Your task to perform on an android device: Search for vegetarian restaurants on Maps Image 0: 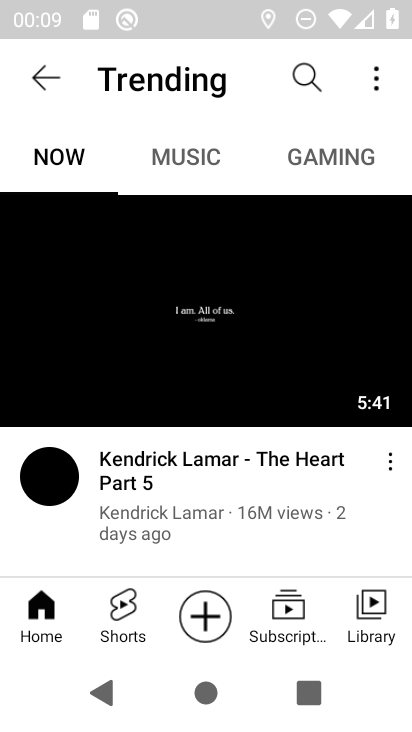
Step 0: press home button
Your task to perform on an android device: Search for vegetarian restaurants on Maps Image 1: 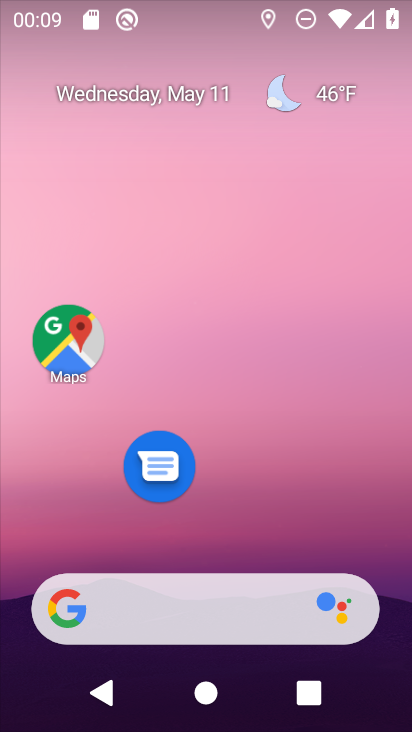
Step 1: drag from (279, 532) to (271, 6)
Your task to perform on an android device: Search for vegetarian restaurants on Maps Image 2: 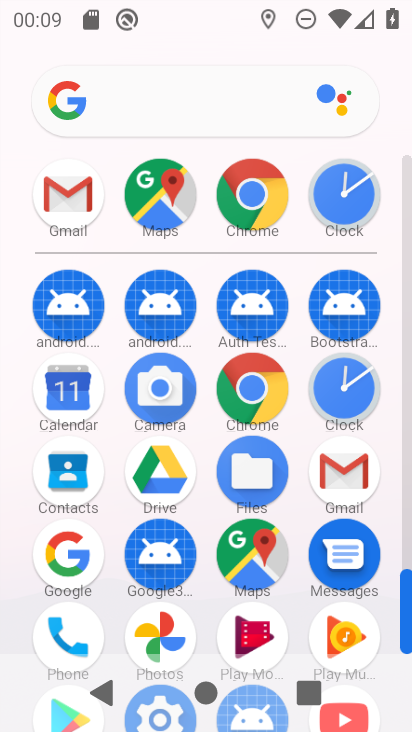
Step 2: click (172, 185)
Your task to perform on an android device: Search for vegetarian restaurants on Maps Image 3: 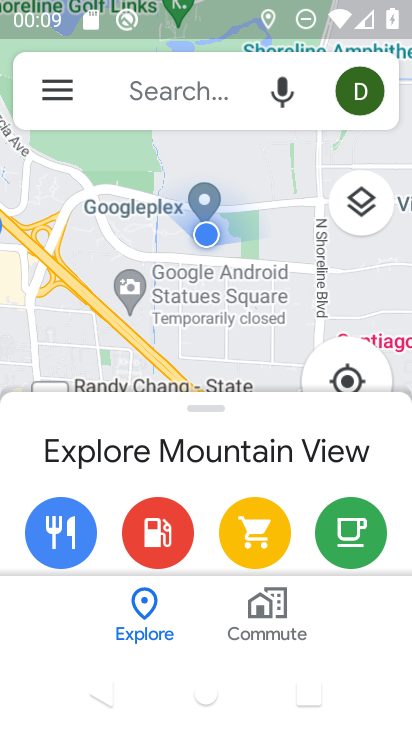
Step 3: click (164, 97)
Your task to perform on an android device: Search for vegetarian restaurants on Maps Image 4: 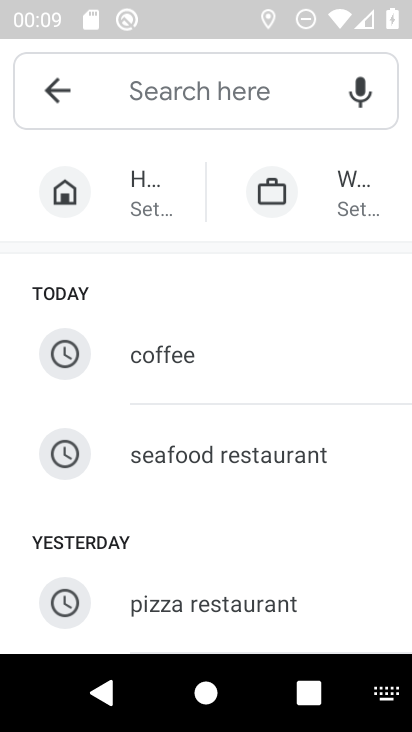
Step 4: type "vegetarian restaurants"
Your task to perform on an android device: Search for vegetarian restaurants on Maps Image 5: 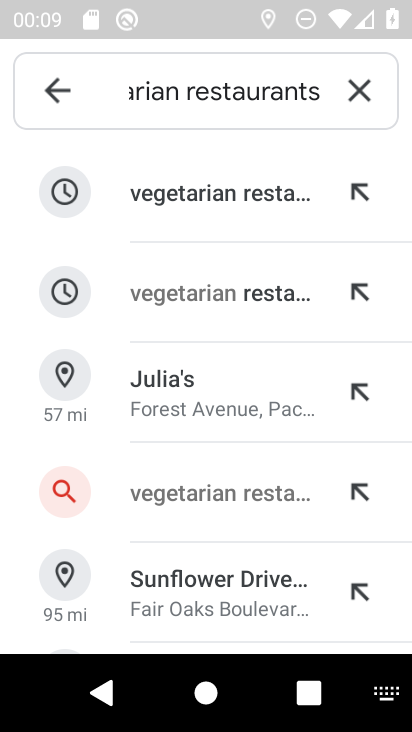
Step 5: click (203, 203)
Your task to perform on an android device: Search for vegetarian restaurants on Maps Image 6: 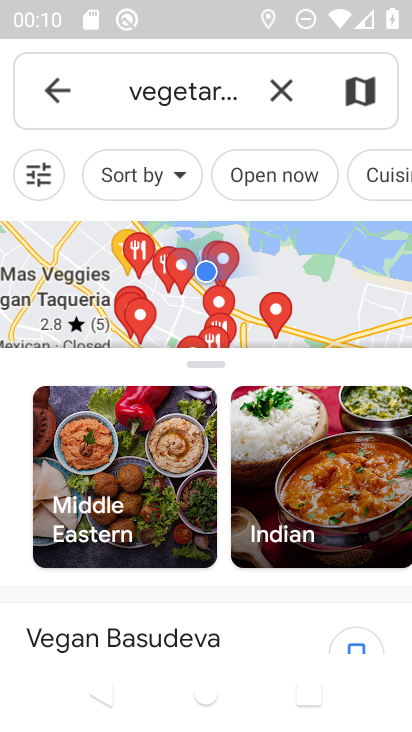
Step 6: task complete